Your task to perform on an android device: check storage Image 0: 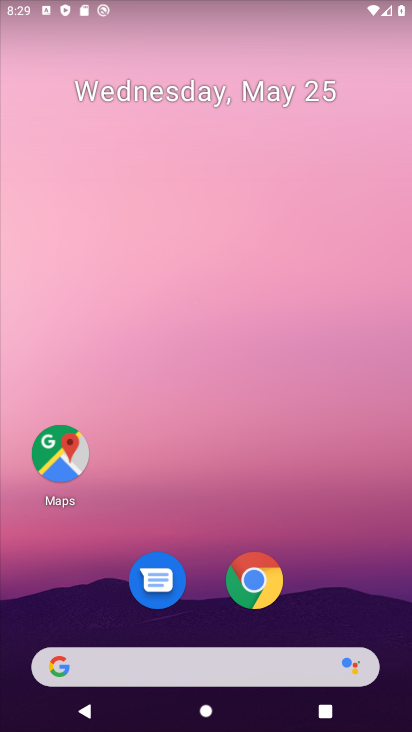
Step 0: press home button
Your task to perform on an android device: check storage Image 1: 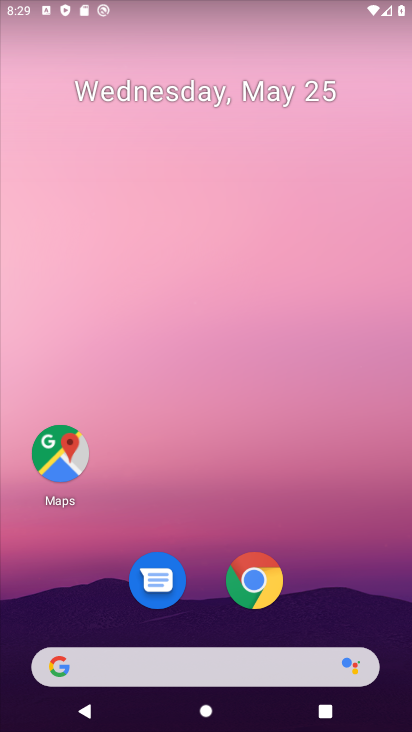
Step 1: drag from (47, 547) to (200, 153)
Your task to perform on an android device: check storage Image 2: 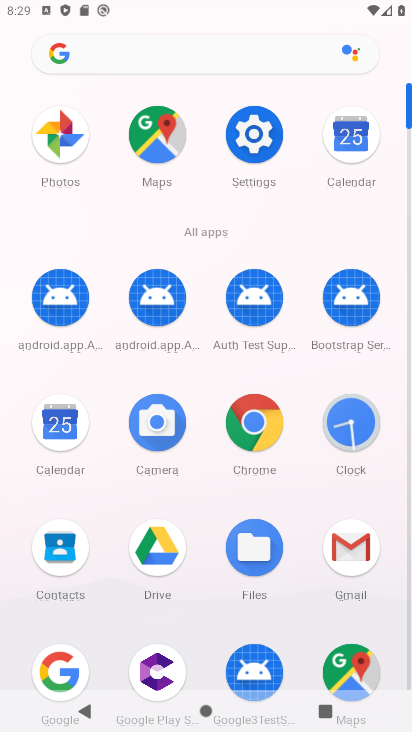
Step 2: click (253, 140)
Your task to perform on an android device: check storage Image 3: 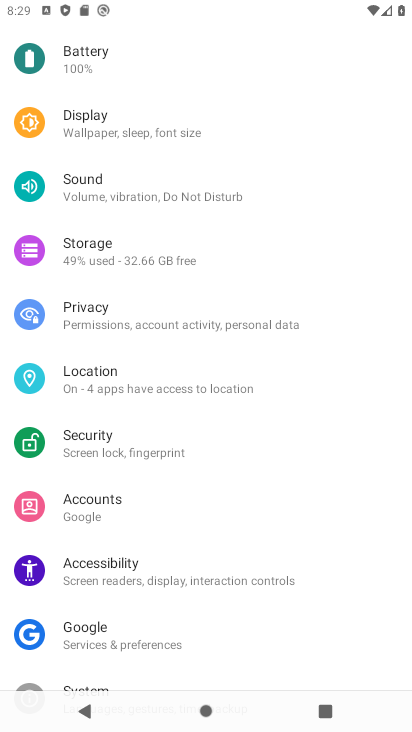
Step 3: click (115, 259)
Your task to perform on an android device: check storage Image 4: 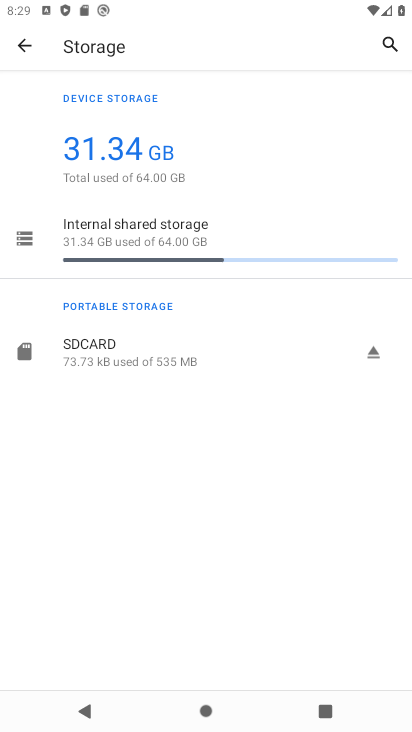
Step 4: task complete